Your task to perform on an android device: visit the assistant section in the google photos Image 0: 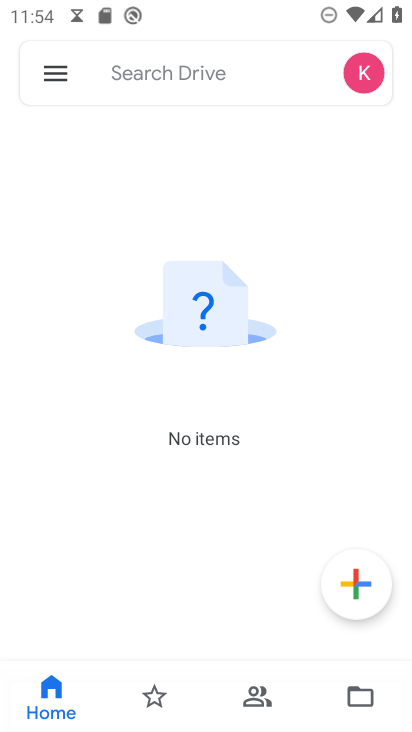
Step 0: press home button
Your task to perform on an android device: visit the assistant section in the google photos Image 1: 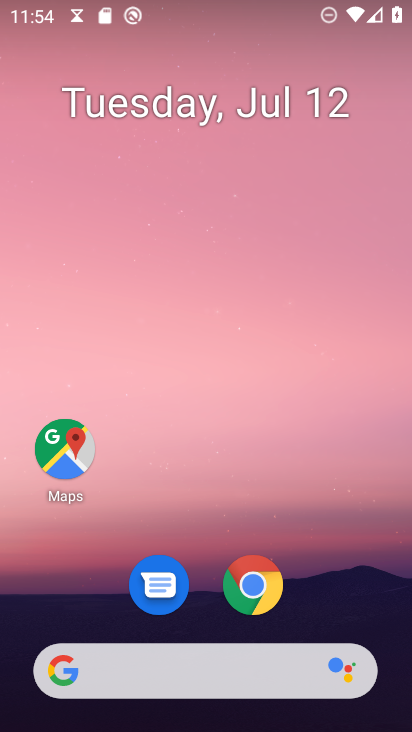
Step 1: drag from (200, 662) to (341, 134)
Your task to perform on an android device: visit the assistant section in the google photos Image 2: 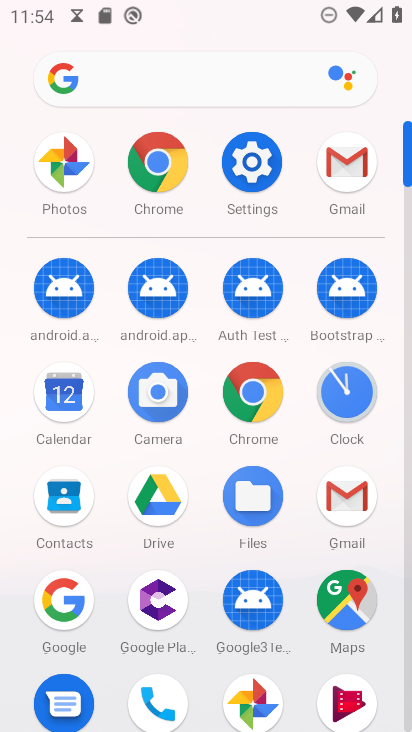
Step 2: click (254, 688)
Your task to perform on an android device: visit the assistant section in the google photos Image 3: 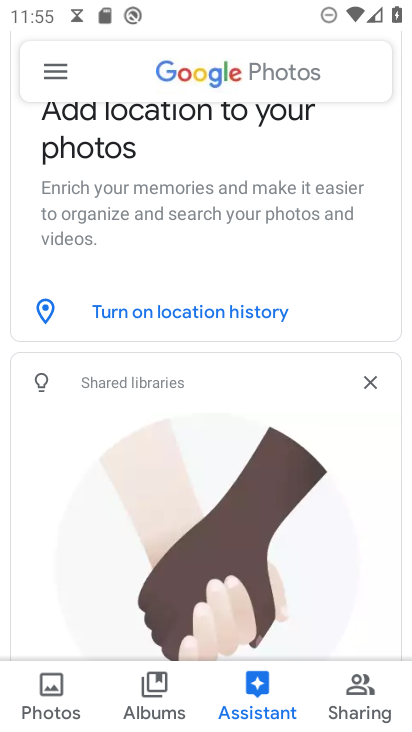
Step 3: task complete